Your task to perform on an android device: uninstall "Microsoft Outlook" Image 0: 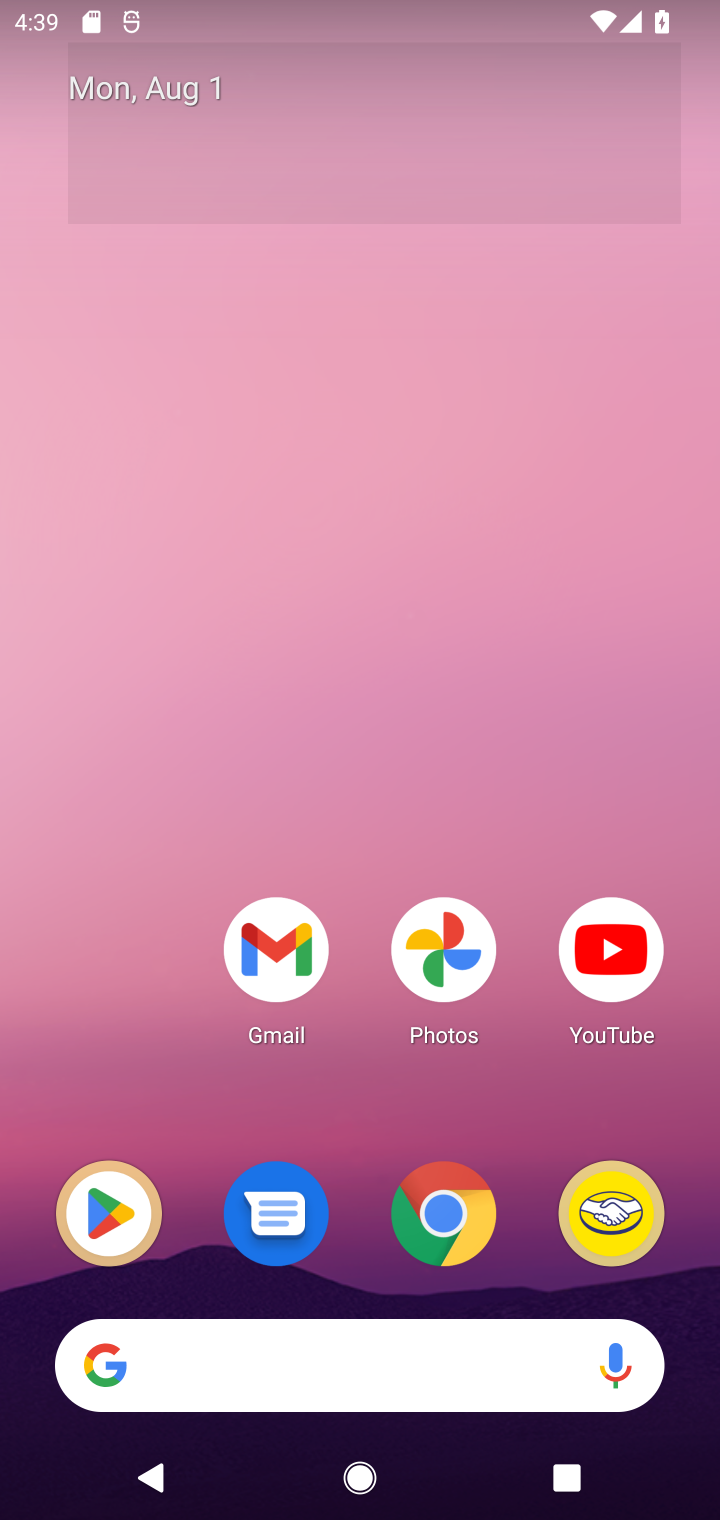
Step 0: drag from (560, 946) to (530, 144)
Your task to perform on an android device: uninstall "Microsoft Outlook" Image 1: 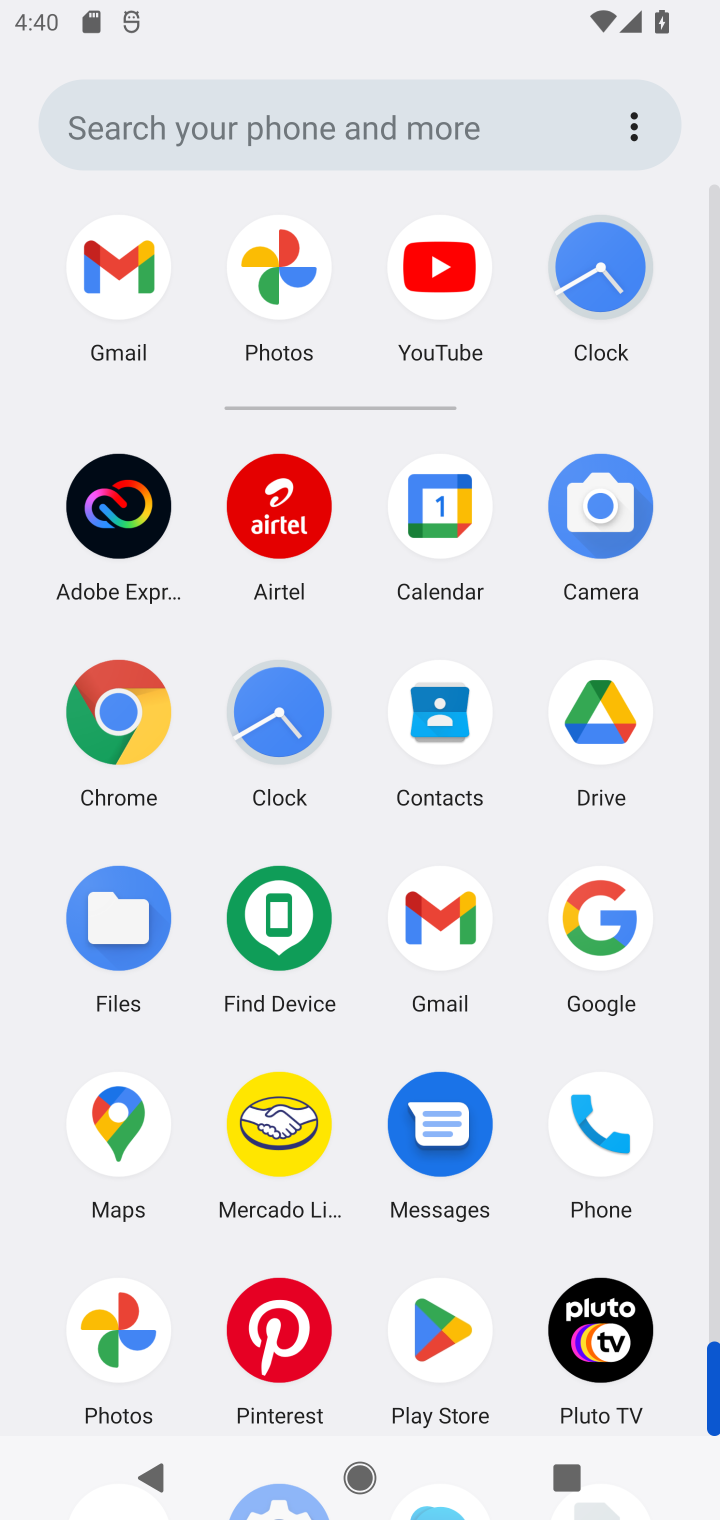
Step 1: click (442, 1362)
Your task to perform on an android device: uninstall "Microsoft Outlook" Image 2: 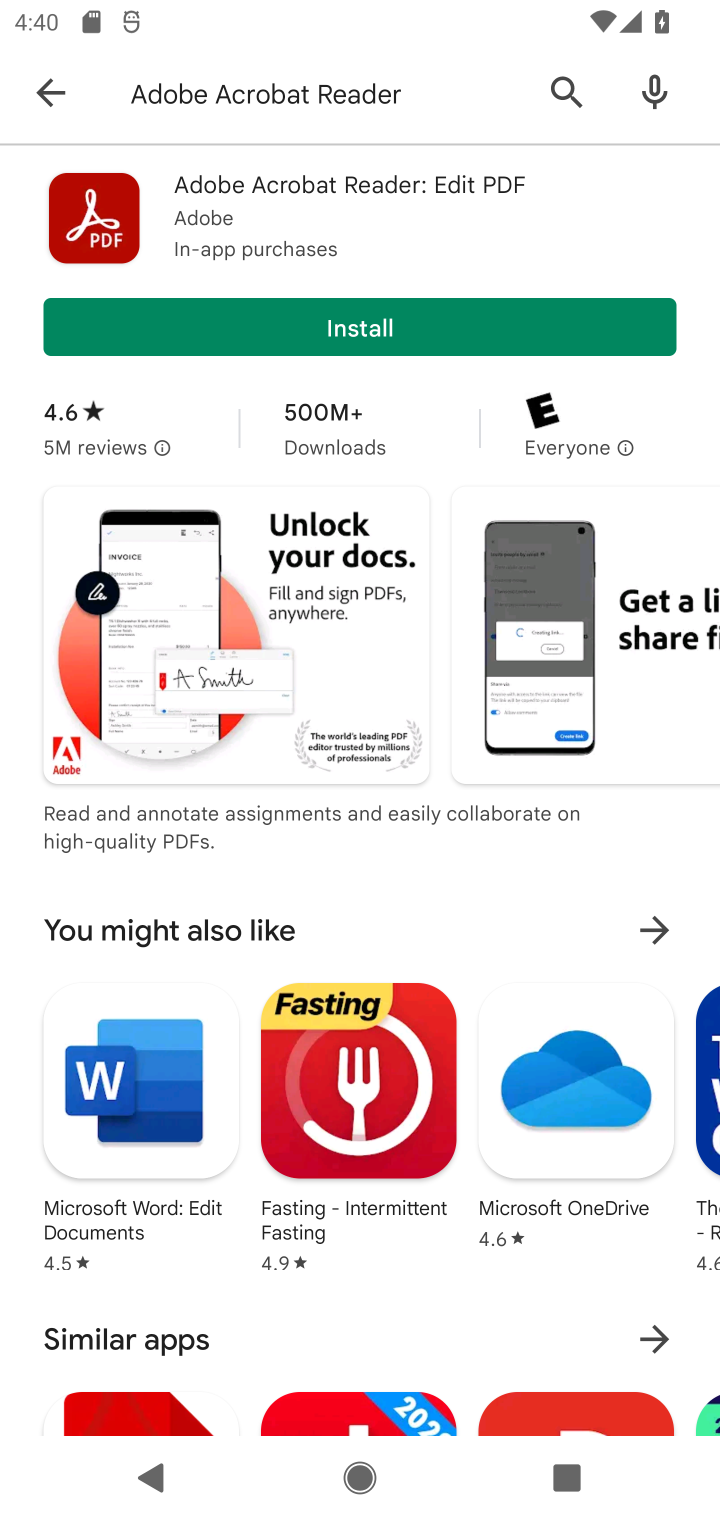
Step 2: click (468, 99)
Your task to perform on an android device: uninstall "Microsoft Outlook" Image 3: 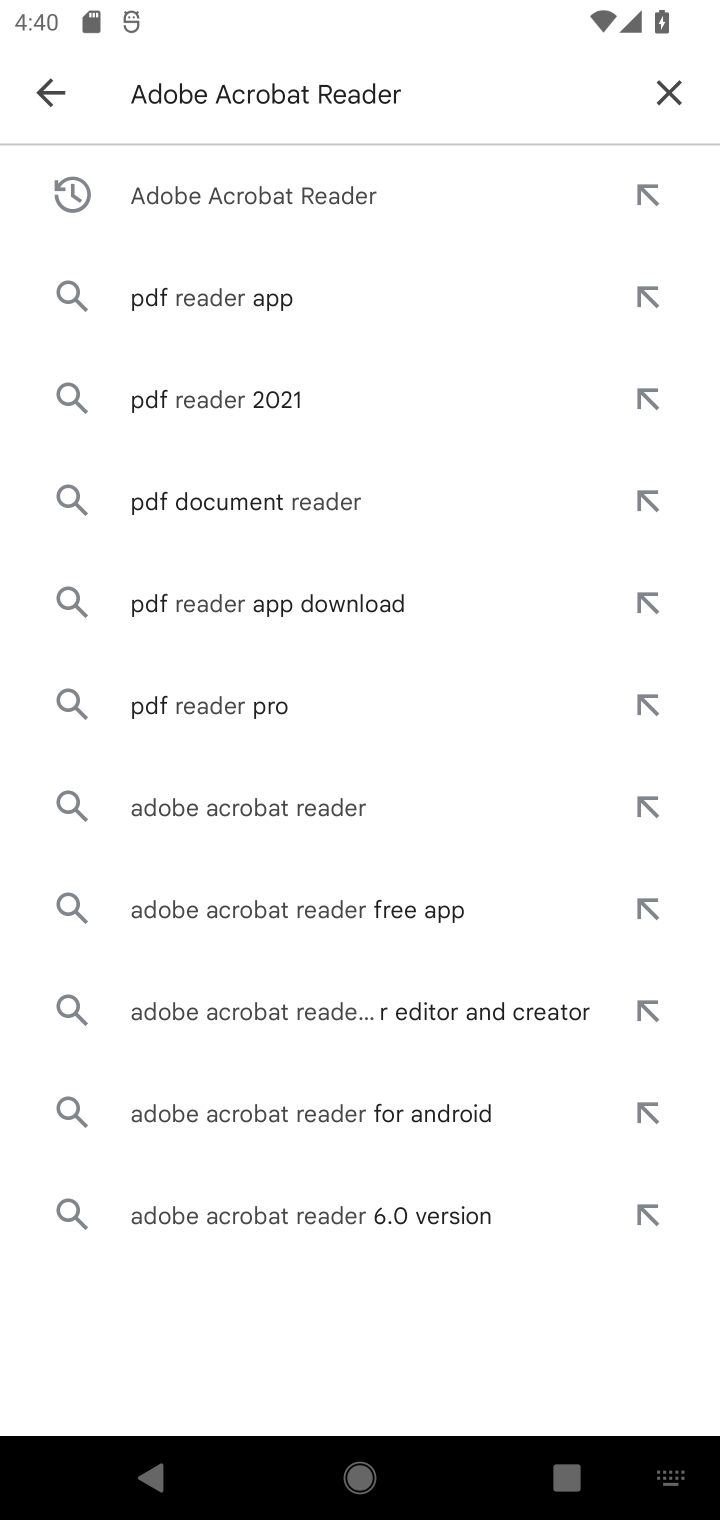
Step 3: click (668, 94)
Your task to perform on an android device: uninstall "Microsoft Outlook" Image 4: 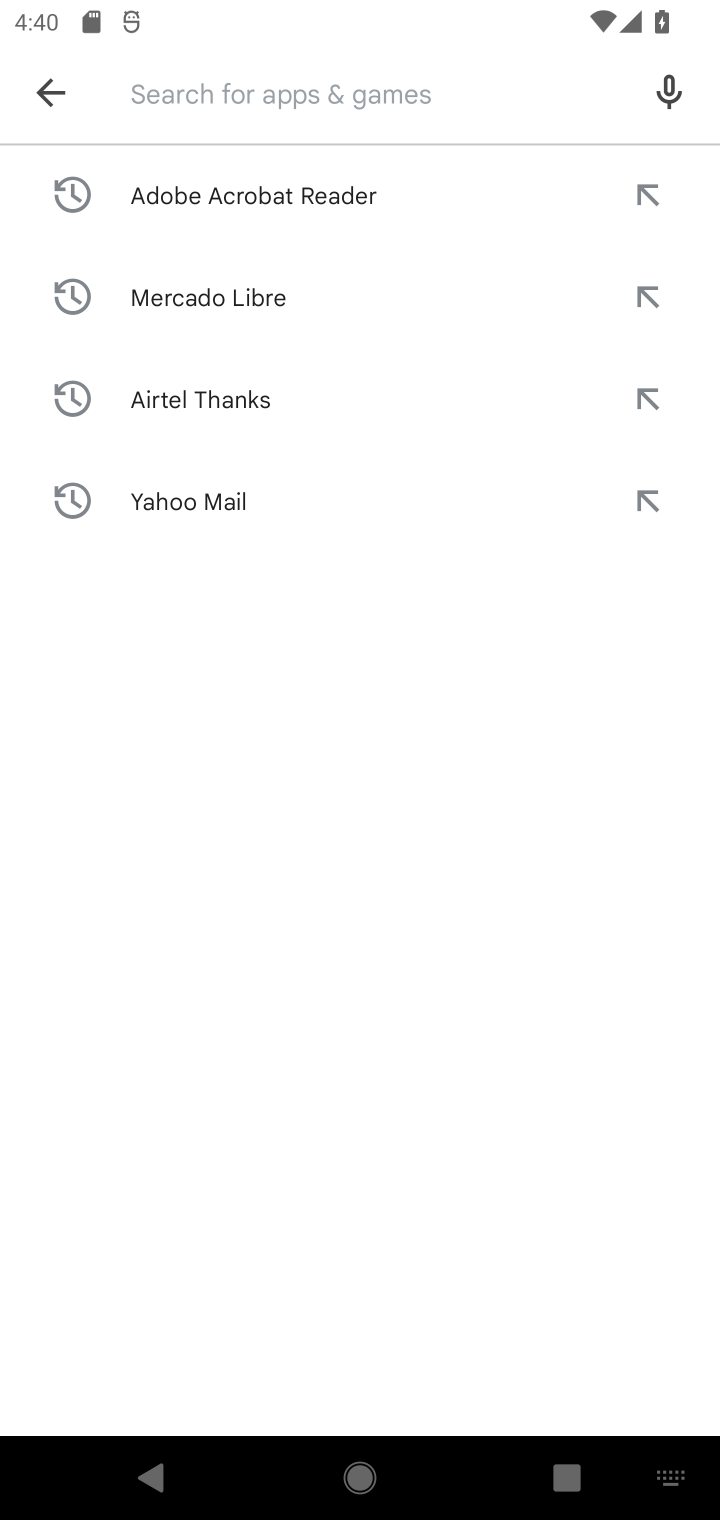
Step 4: type "Microsoft Outlook"
Your task to perform on an android device: uninstall "Microsoft Outlook" Image 5: 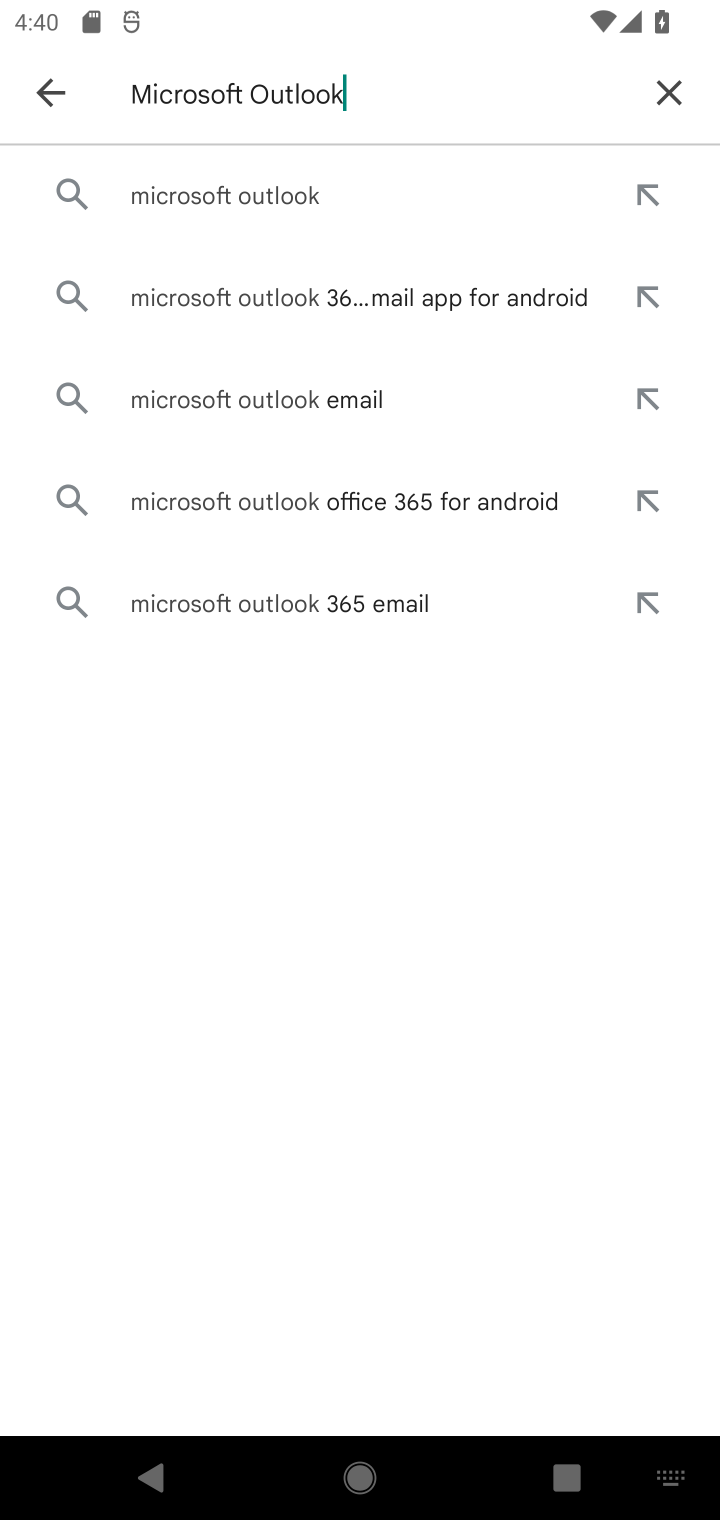
Step 5: press enter
Your task to perform on an android device: uninstall "Microsoft Outlook" Image 6: 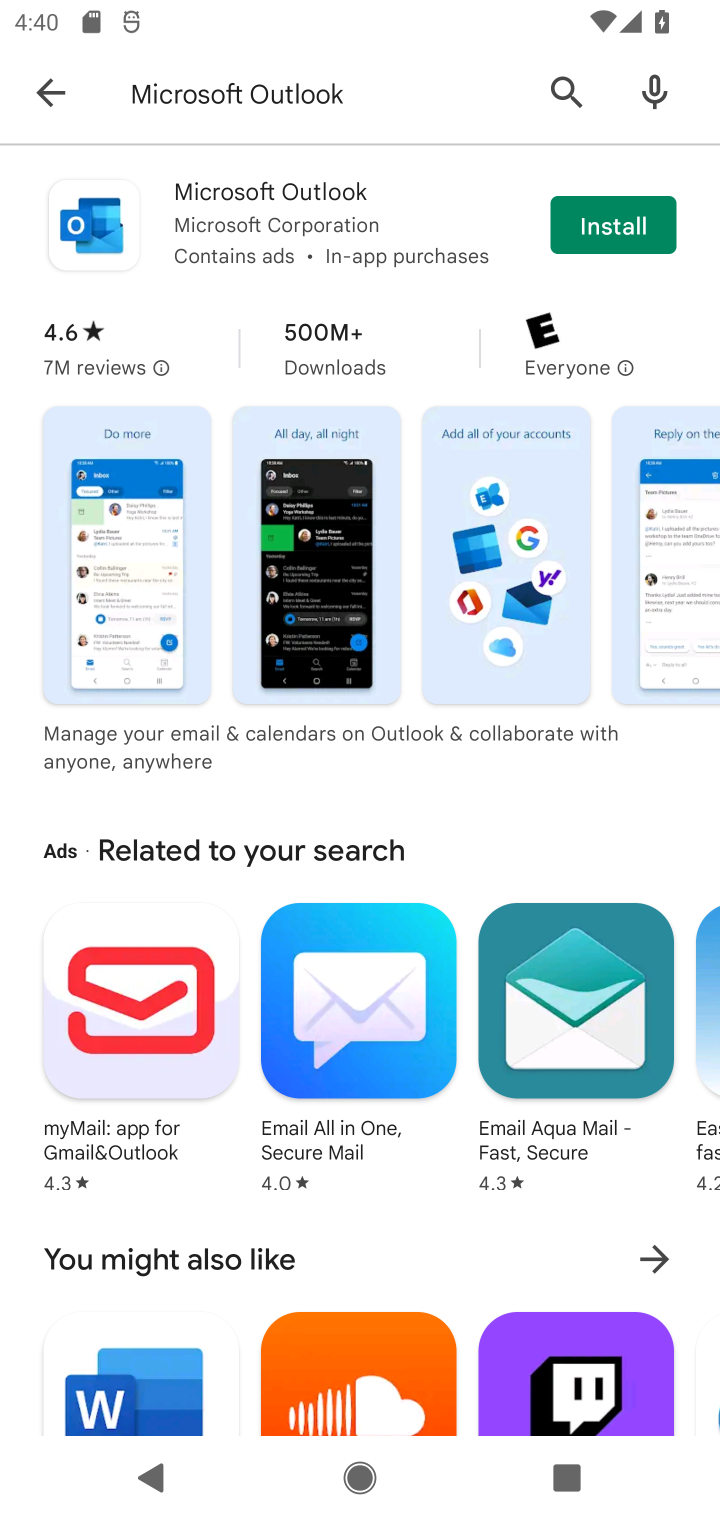
Step 6: task complete